Your task to perform on an android device: Open location settings Image 0: 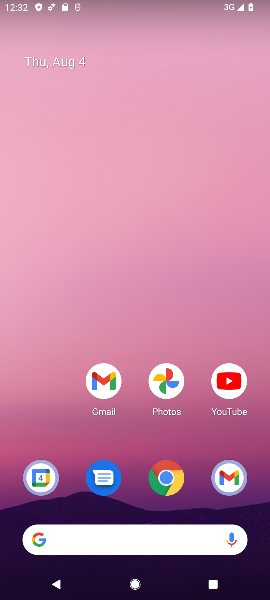
Step 0: drag from (187, 452) to (134, 0)
Your task to perform on an android device: Open location settings Image 1: 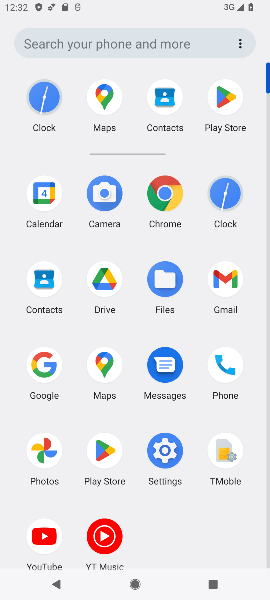
Step 1: click (163, 449)
Your task to perform on an android device: Open location settings Image 2: 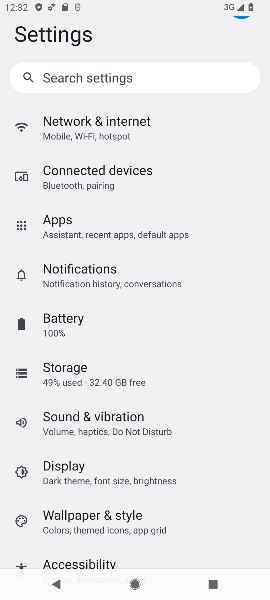
Step 2: drag from (118, 435) to (129, 190)
Your task to perform on an android device: Open location settings Image 3: 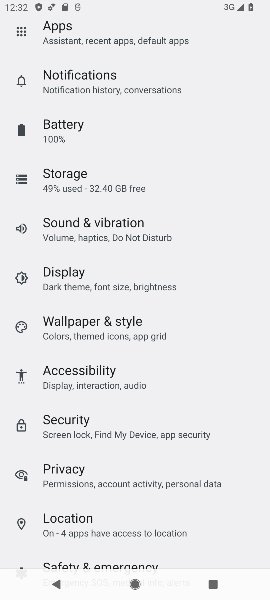
Step 3: click (75, 511)
Your task to perform on an android device: Open location settings Image 4: 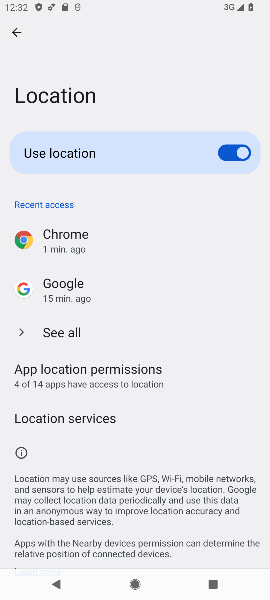
Step 4: task complete